Your task to perform on an android device: Search for Mexican restaurants on Maps Image 0: 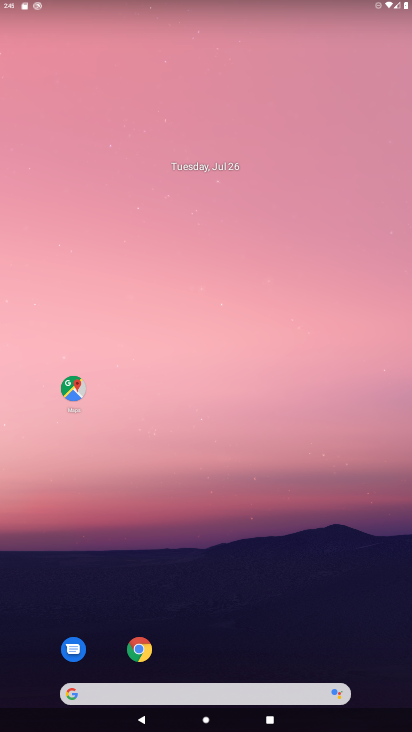
Step 0: click (76, 404)
Your task to perform on an android device: Search for Mexican restaurants on Maps Image 1: 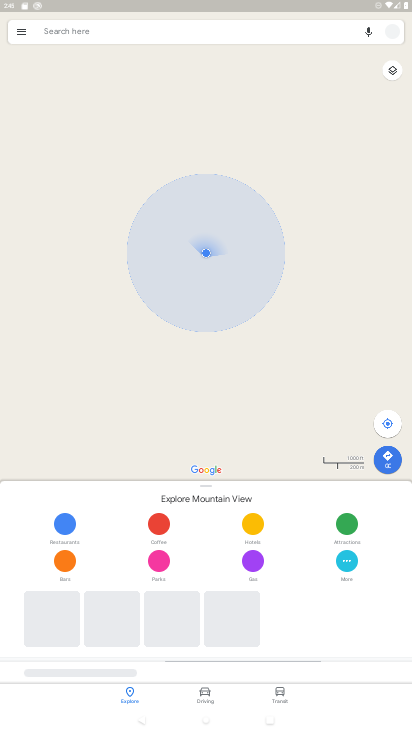
Step 1: click (146, 35)
Your task to perform on an android device: Search for Mexican restaurants on Maps Image 2: 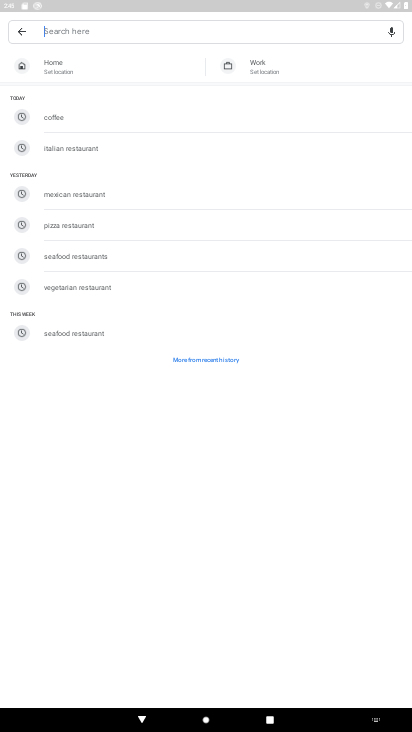
Step 2: type "mexican restaurant"
Your task to perform on an android device: Search for Mexican restaurants on Maps Image 3: 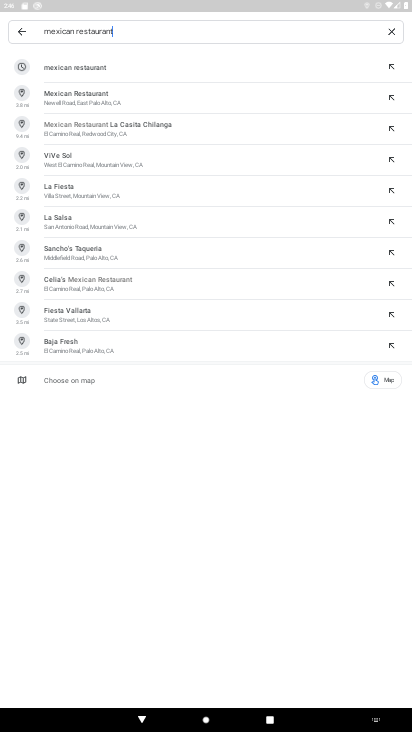
Step 3: click (111, 75)
Your task to perform on an android device: Search for Mexican restaurants on Maps Image 4: 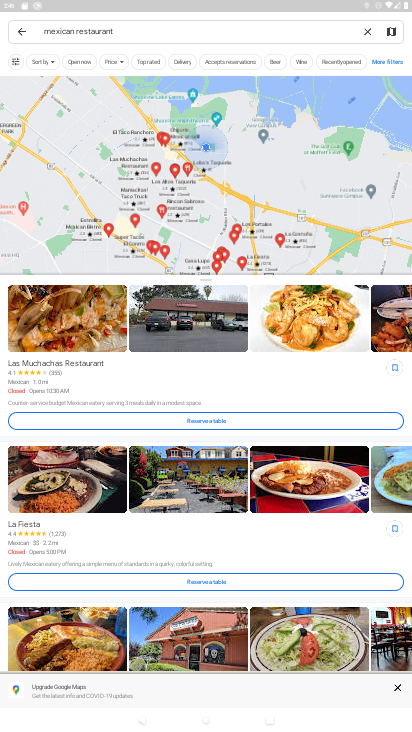
Step 4: task complete